Your task to perform on an android device: check google app version Image 0: 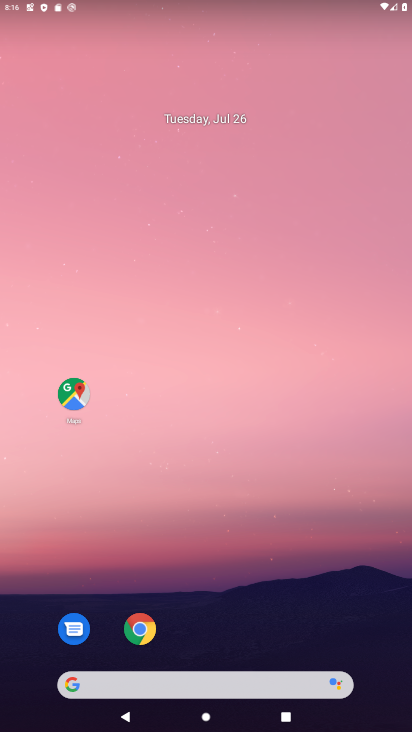
Step 0: press home button
Your task to perform on an android device: check google app version Image 1: 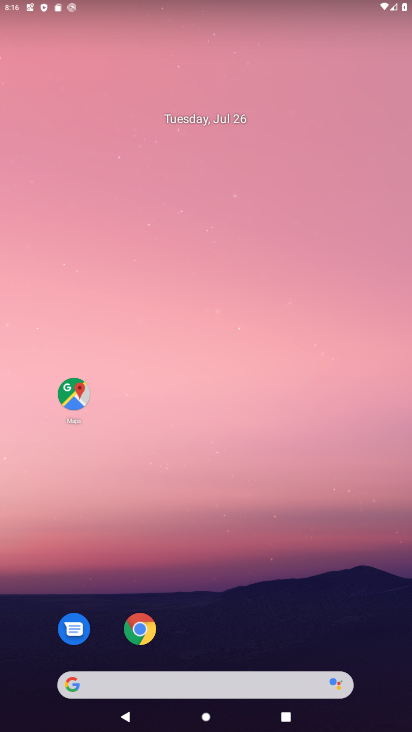
Step 1: drag from (215, 645) to (210, 48)
Your task to perform on an android device: check google app version Image 2: 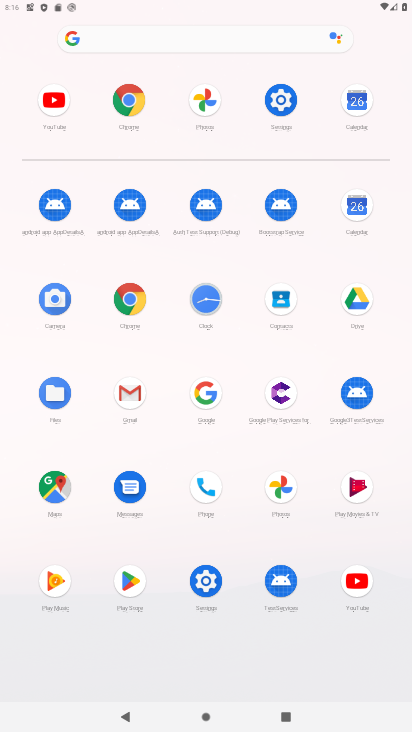
Step 2: click (204, 388)
Your task to perform on an android device: check google app version Image 3: 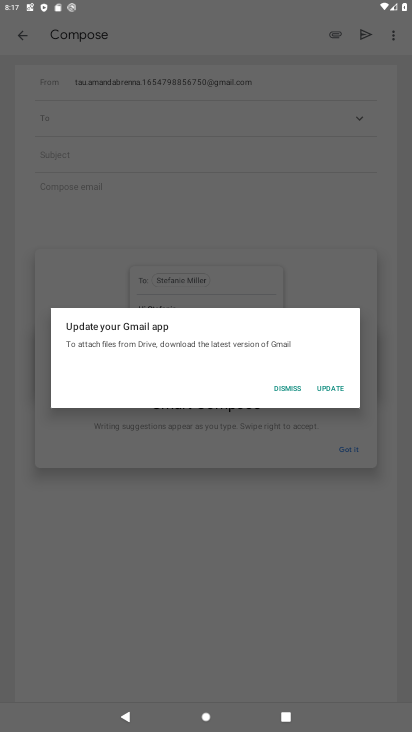
Step 3: press home button
Your task to perform on an android device: check google app version Image 4: 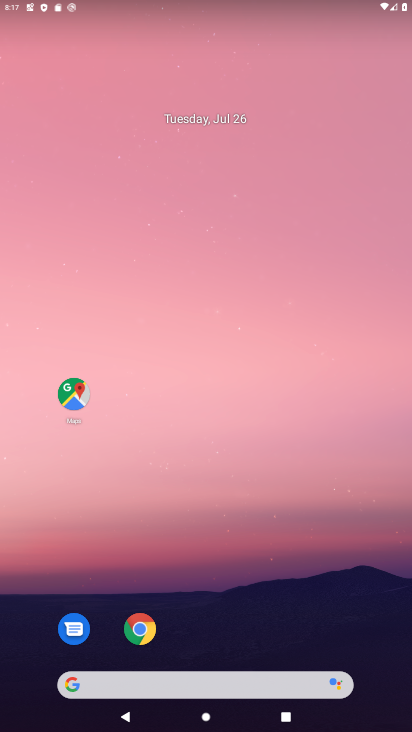
Step 4: drag from (217, 644) to (216, 96)
Your task to perform on an android device: check google app version Image 5: 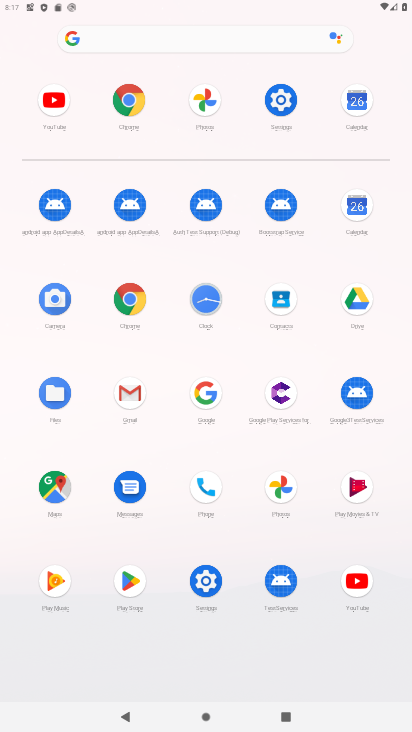
Step 5: click (203, 389)
Your task to perform on an android device: check google app version Image 6: 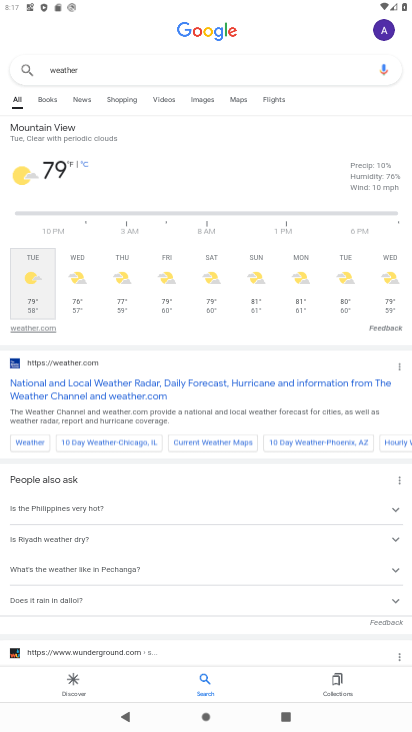
Step 6: click (379, 32)
Your task to perform on an android device: check google app version Image 7: 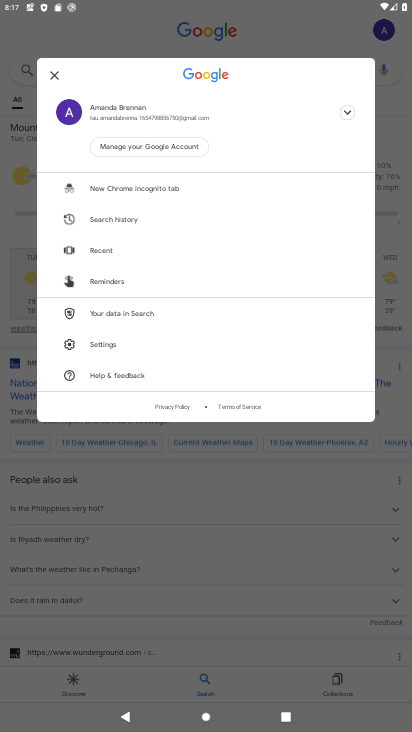
Step 7: click (83, 341)
Your task to perform on an android device: check google app version Image 8: 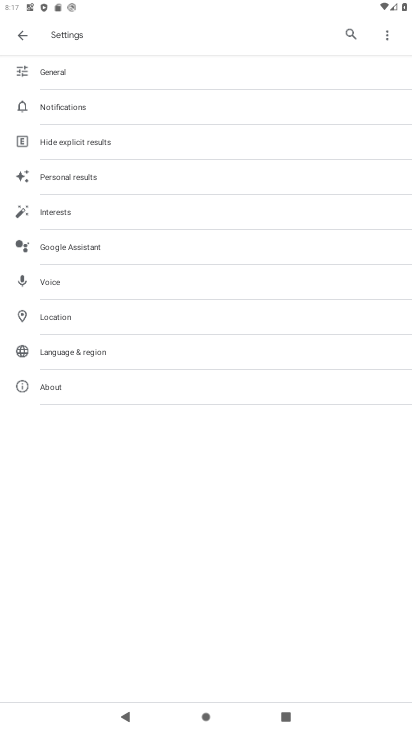
Step 8: click (64, 390)
Your task to perform on an android device: check google app version Image 9: 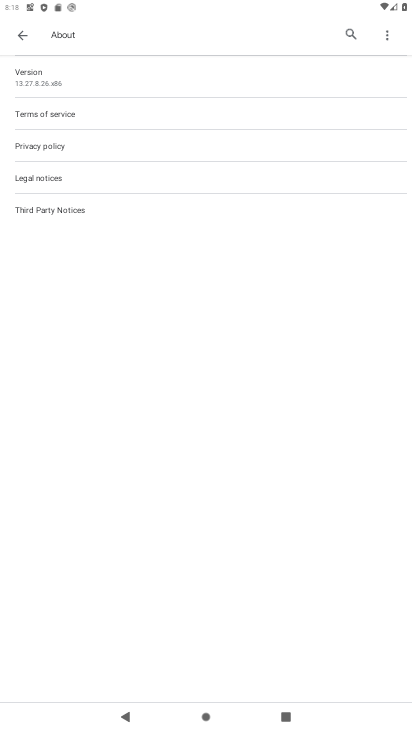
Step 9: task complete